Your task to perform on an android device: Search for seafood restaurants on Google Maps Image 0: 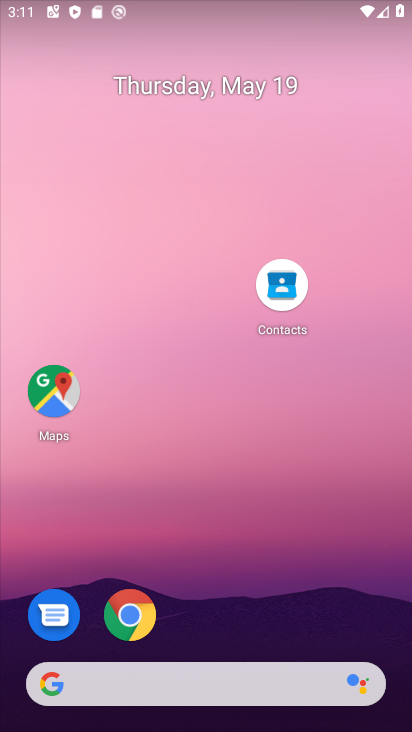
Step 0: drag from (224, 525) to (307, 85)
Your task to perform on an android device: Search for seafood restaurants on Google Maps Image 1: 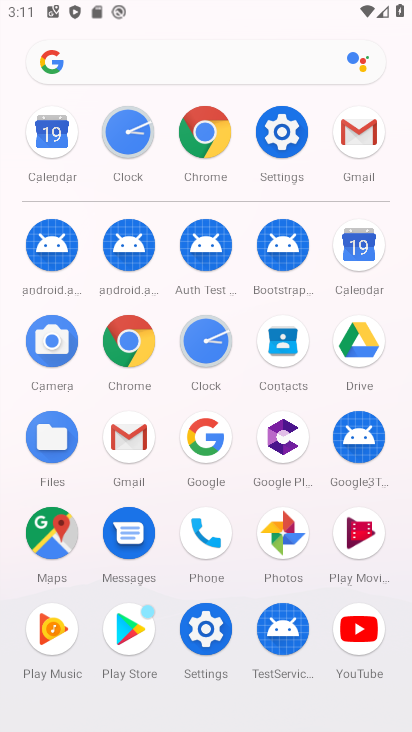
Step 1: click (56, 540)
Your task to perform on an android device: Search for seafood restaurants on Google Maps Image 2: 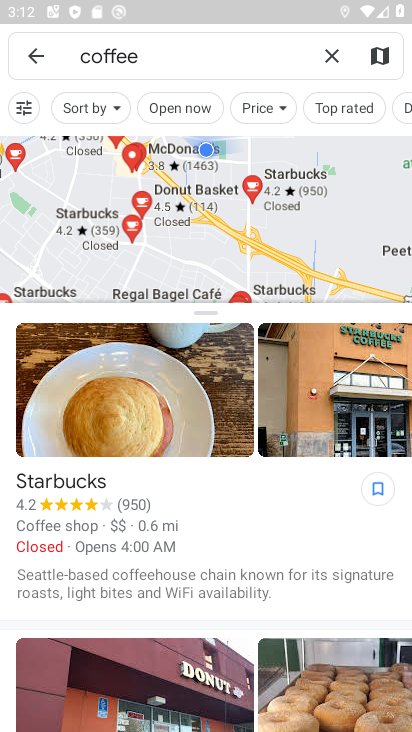
Step 2: click (336, 54)
Your task to perform on an android device: Search for seafood restaurants on Google Maps Image 3: 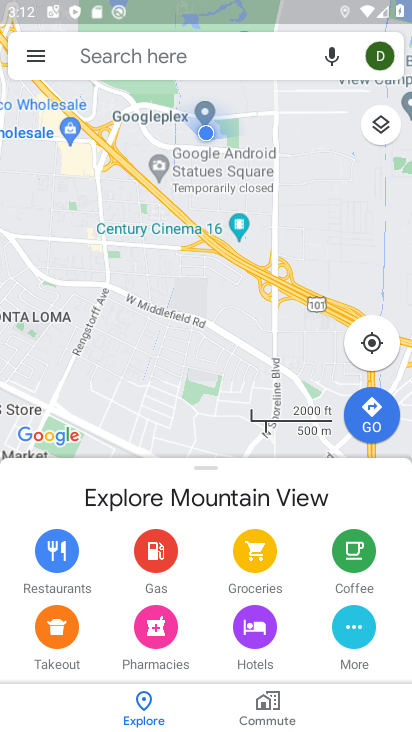
Step 3: click (263, 54)
Your task to perform on an android device: Search for seafood restaurants on Google Maps Image 4: 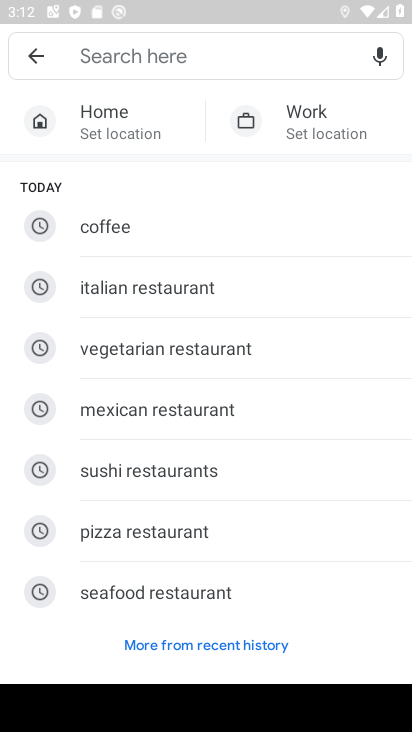
Step 4: type "seafood "
Your task to perform on an android device: Search for seafood restaurants on Google Maps Image 5: 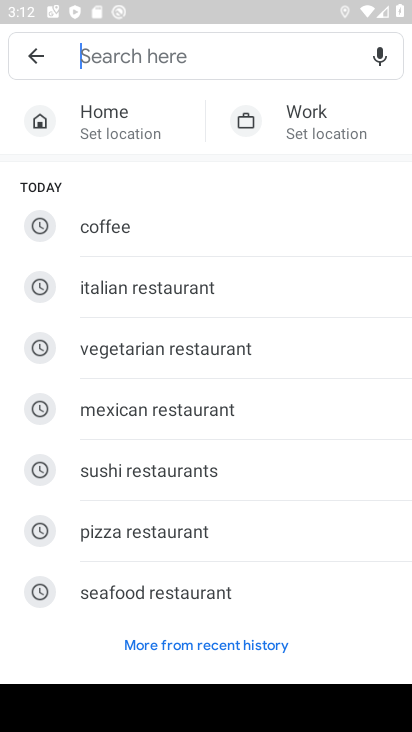
Step 5: click (181, 599)
Your task to perform on an android device: Search for seafood restaurants on Google Maps Image 6: 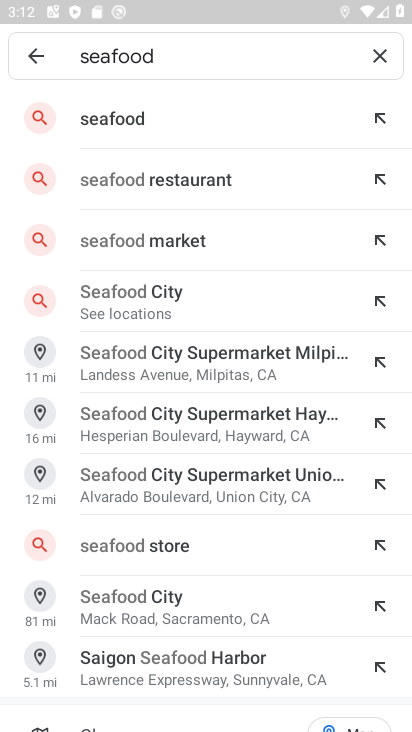
Step 6: click (213, 189)
Your task to perform on an android device: Search for seafood restaurants on Google Maps Image 7: 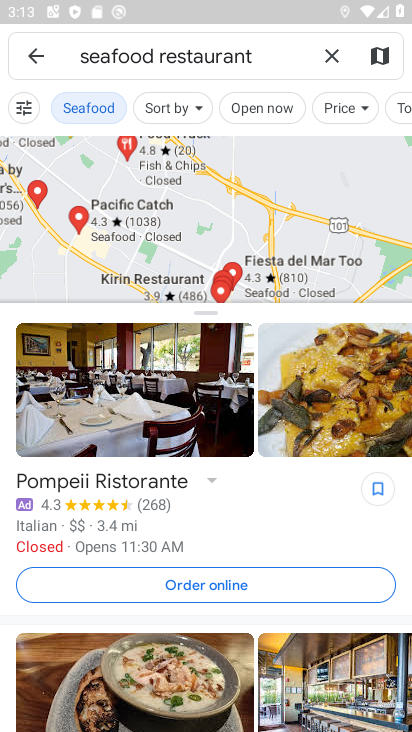
Step 7: task complete